Your task to perform on an android device: delete the emails in spam in the gmail app Image 0: 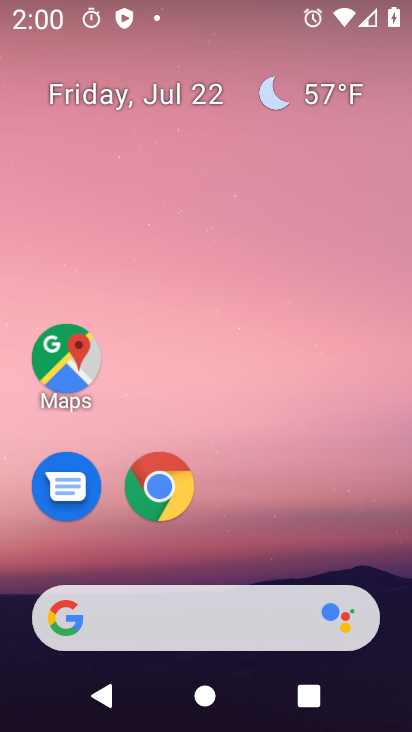
Step 0: press home button
Your task to perform on an android device: delete the emails in spam in the gmail app Image 1: 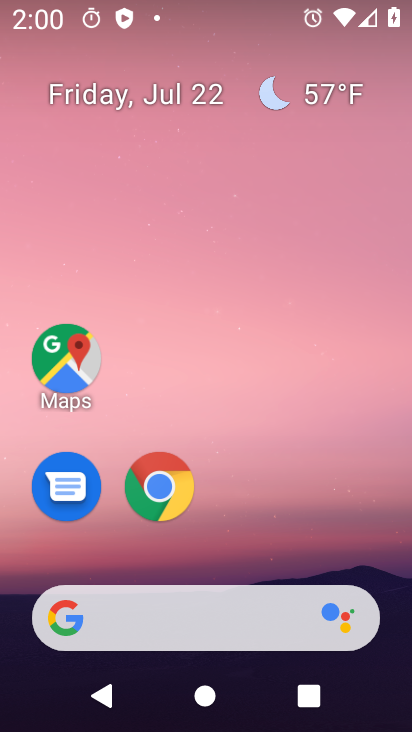
Step 1: drag from (336, 526) to (357, 139)
Your task to perform on an android device: delete the emails in spam in the gmail app Image 2: 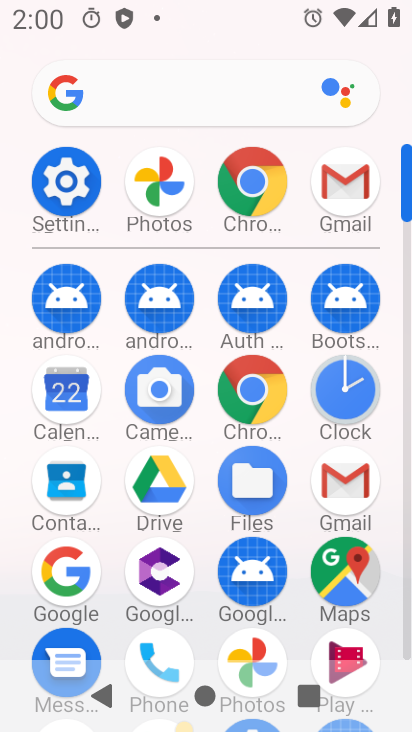
Step 2: click (360, 186)
Your task to perform on an android device: delete the emails in spam in the gmail app Image 3: 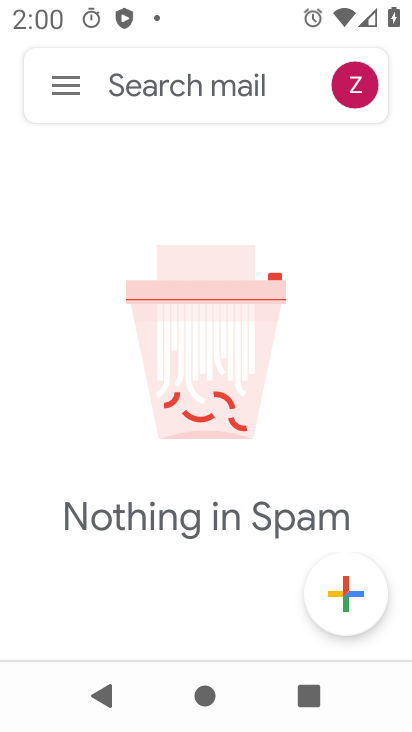
Step 3: task complete